Your task to perform on an android device: Open internet settings Image 0: 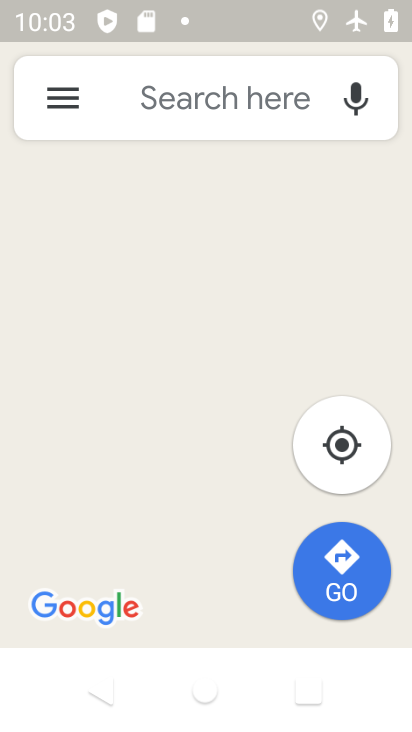
Step 0: press home button
Your task to perform on an android device: Open internet settings Image 1: 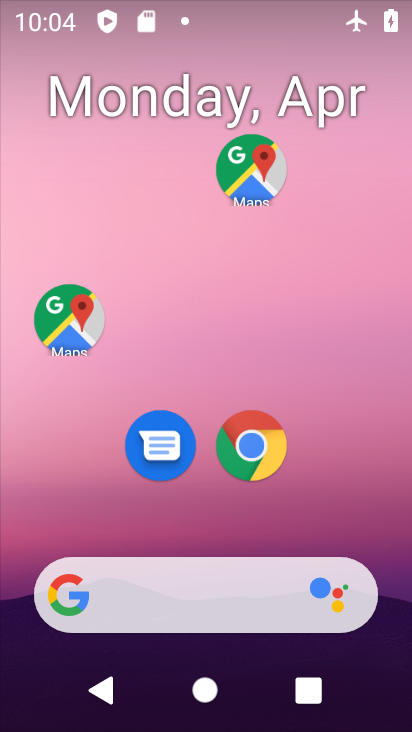
Step 1: drag from (271, 483) to (215, 172)
Your task to perform on an android device: Open internet settings Image 2: 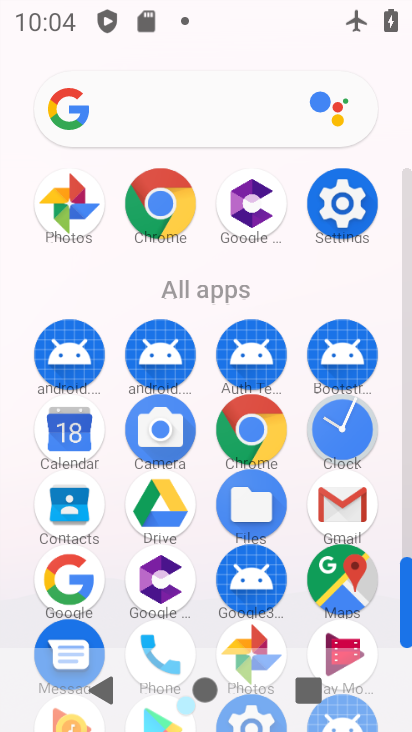
Step 2: click (337, 208)
Your task to perform on an android device: Open internet settings Image 3: 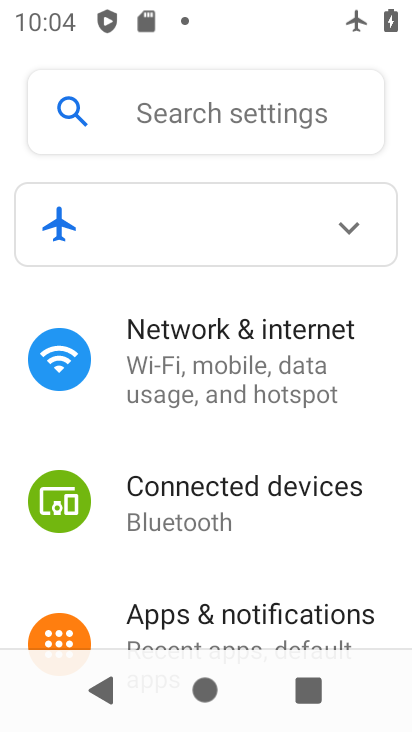
Step 3: click (224, 380)
Your task to perform on an android device: Open internet settings Image 4: 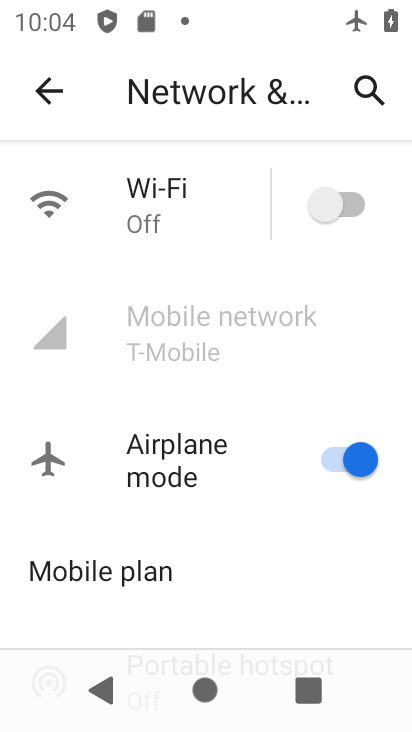
Step 4: task complete